Your task to perform on an android device: check battery use Image 0: 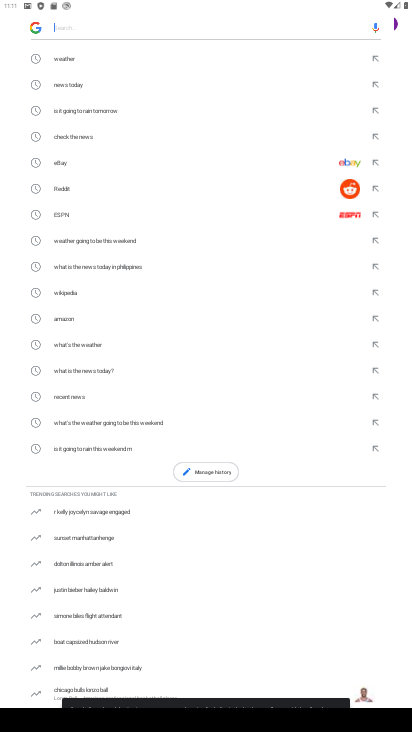
Step 0: press home button
Your task to perform on an android device: check battery use Image 1: 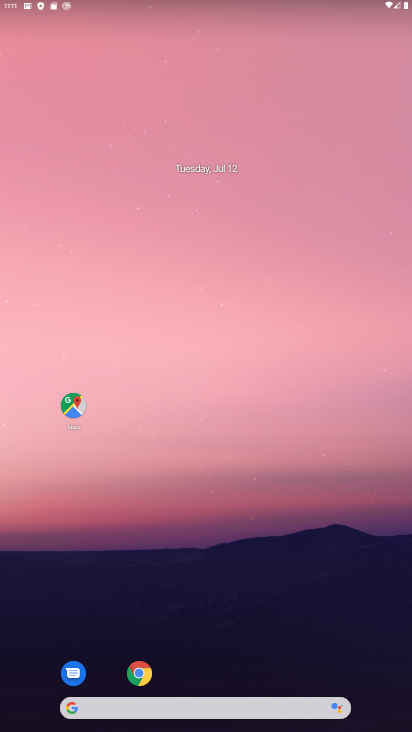
Step 1: drag from (242, 611) to (242, 174)
Your task to perform on an android device: check battery use Image 2: 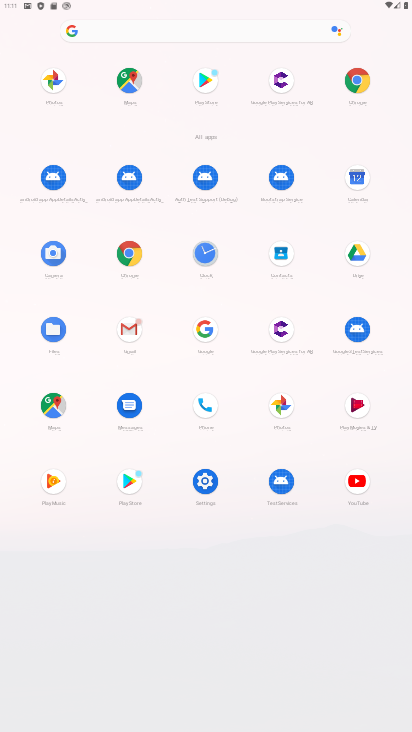
Step 2: click (214, 476)
Your task to perform on an android device: check battery use Image 3: 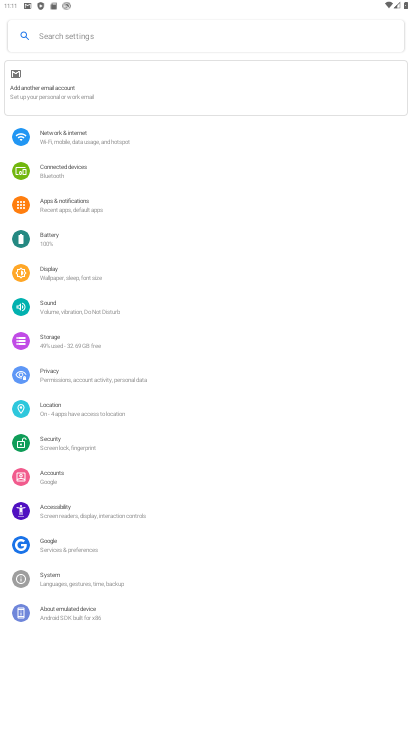
Step 3: click (81, 340)
Your task to perform on an android device: check battery use Image 4: 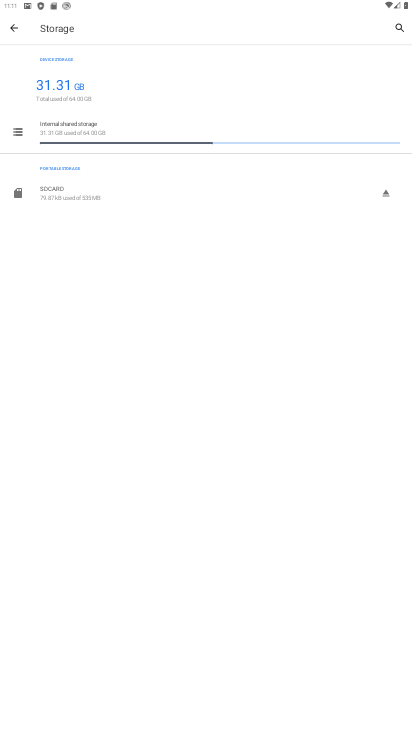
Step 4: click (21, 33)
Your task to perform on an android device: check battery use Image 5: 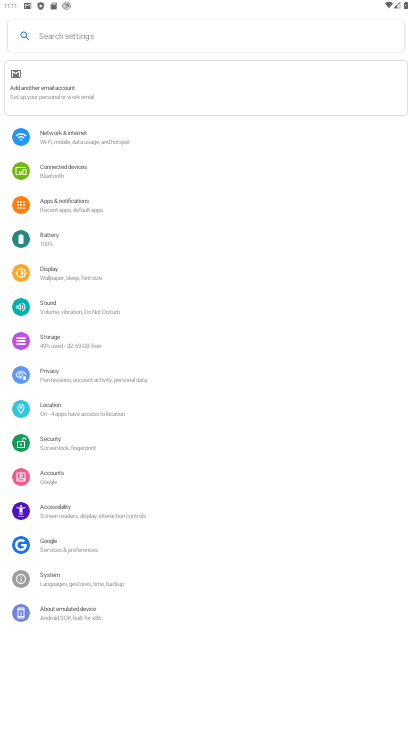
Step 5: click (67, 242)
Your task to perform on an android device: check battery use Image 6: 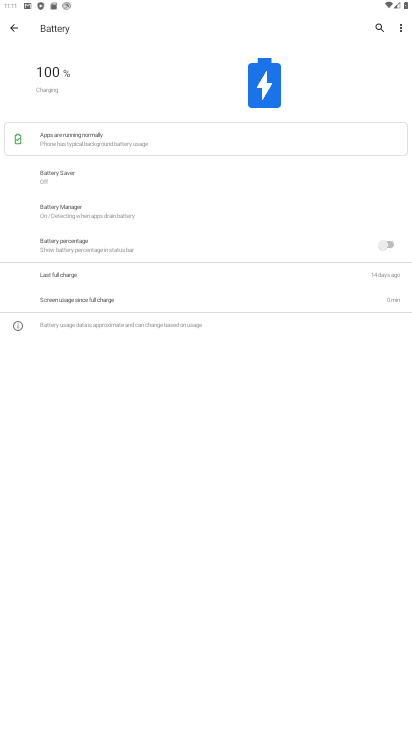
Step 6: click (400, 27)
Your task to perform on an android device: check battery use Image 7: 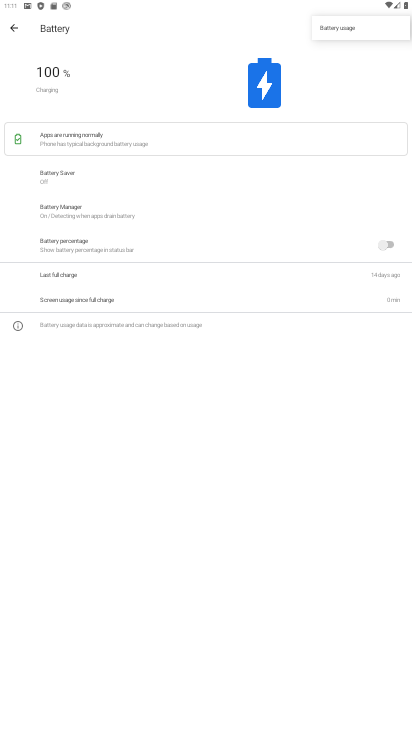
Step 7: click (367, 29)
Your task to perform on an android device: check battery use Image 8: 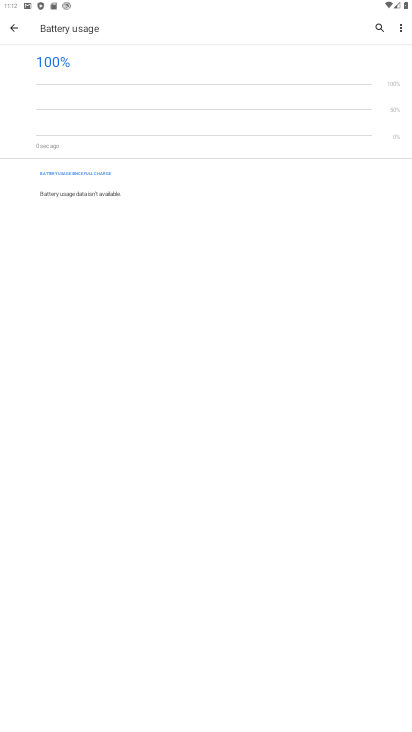
Step 8: task complete